Your task to perform on an android device: open app "Reddit" (install if not already installed) Image 0: 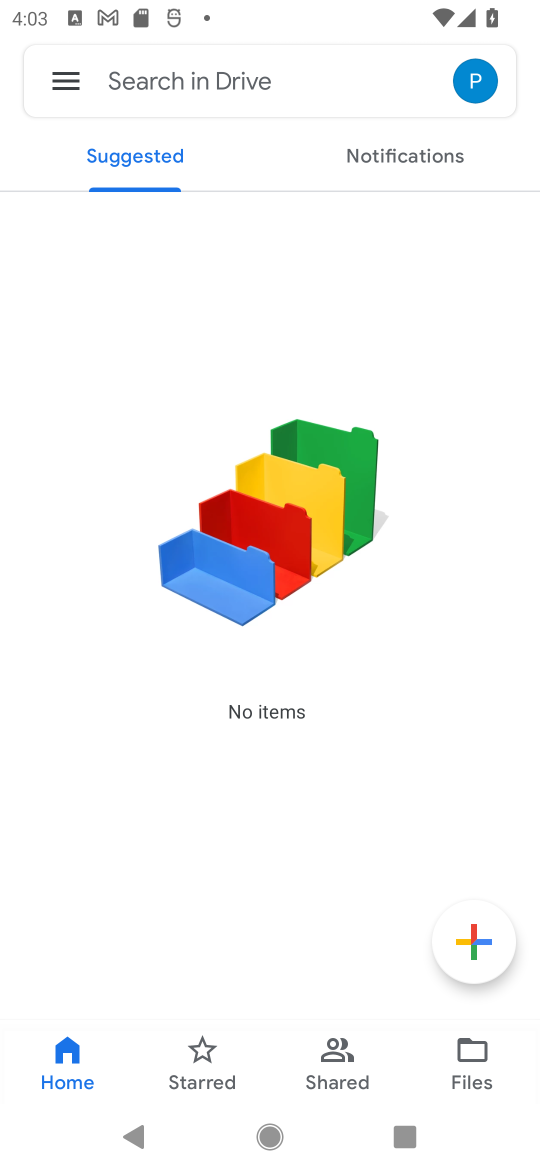
Step 0: press home button
Your task to perform on an android device: open app "Reddit" (install if not already installed) Image 1: 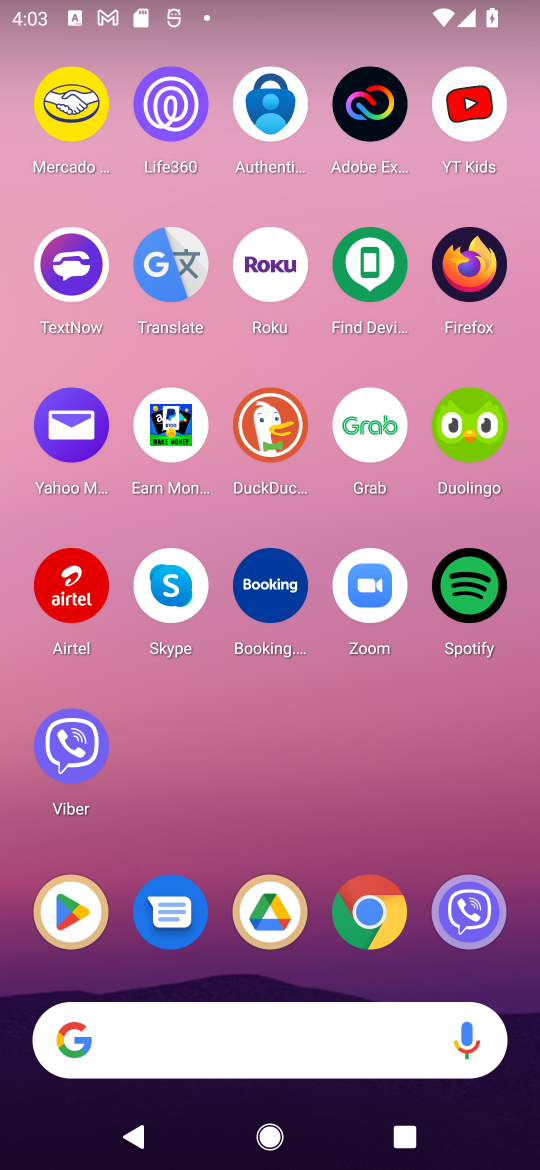
Step 1: click (64, 903)
Your task to perform on an android device: open app "Reddit" (install if not already installed) Image 2: 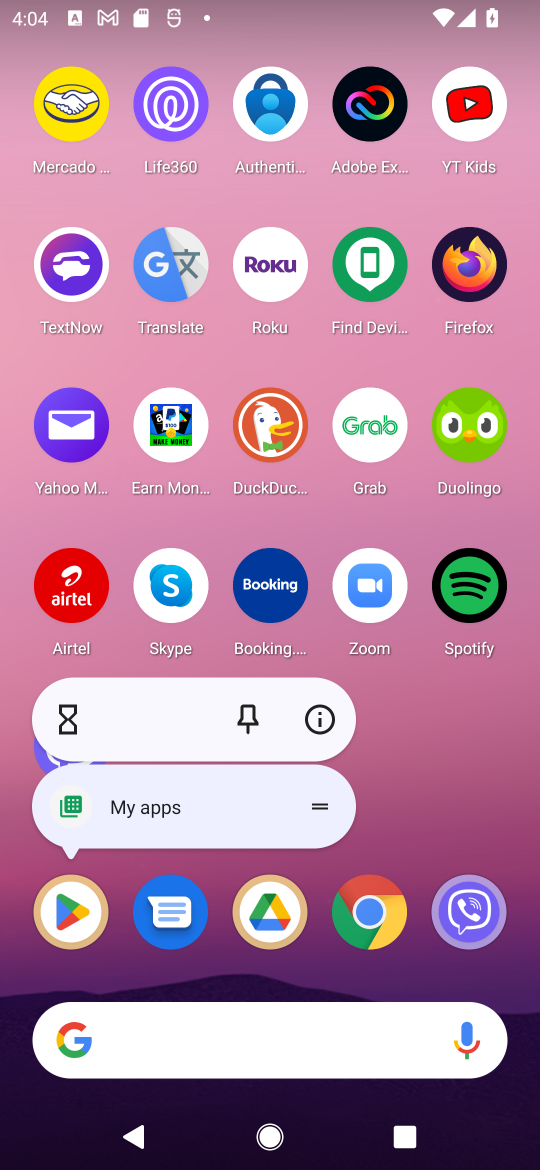
Step 2: click (64, 903)
Your task to perform on an android device: open app "Reddit" (install if not already installed) Image 3: 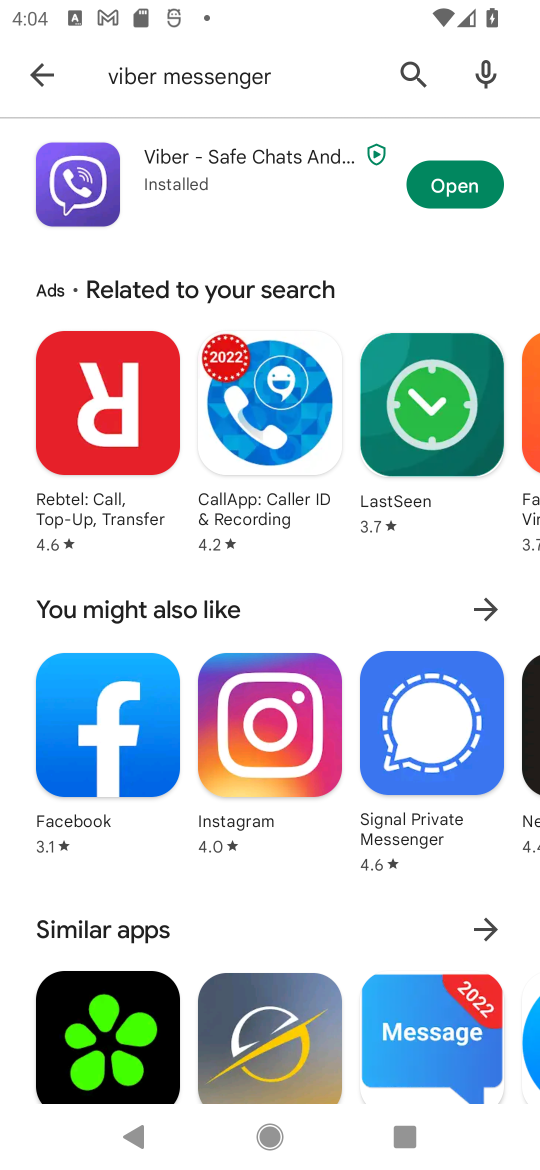
Step 3: click (407, 74)
Your task to perform on an android device: open app "Reddit" (install if not already installed) Image 4: 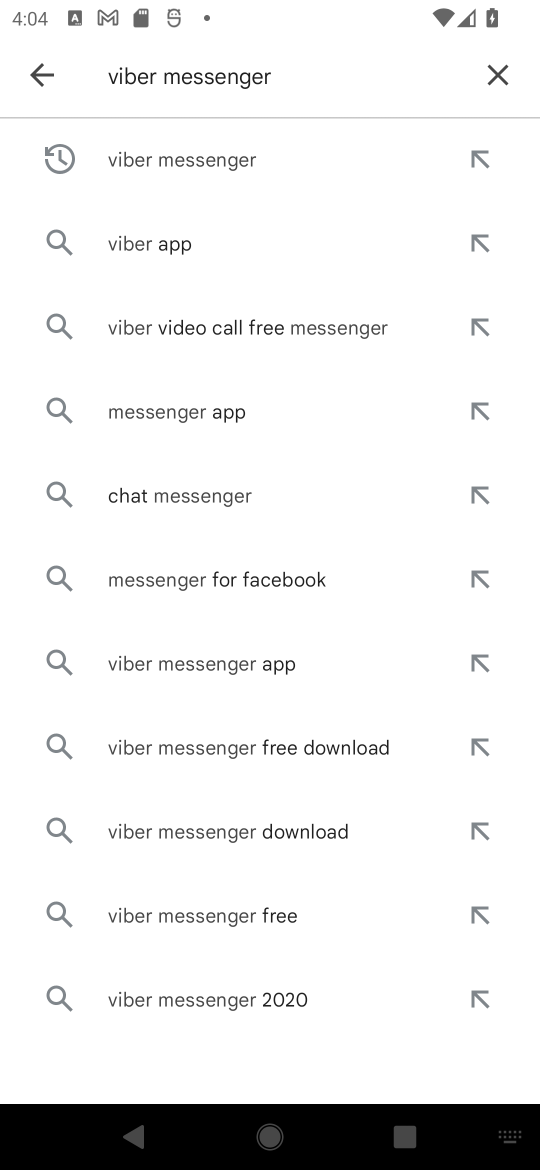
Step 4: click (491, 80)
Your task to perform on an android device: open app "Reddit" (install if not already installed) Image 5: 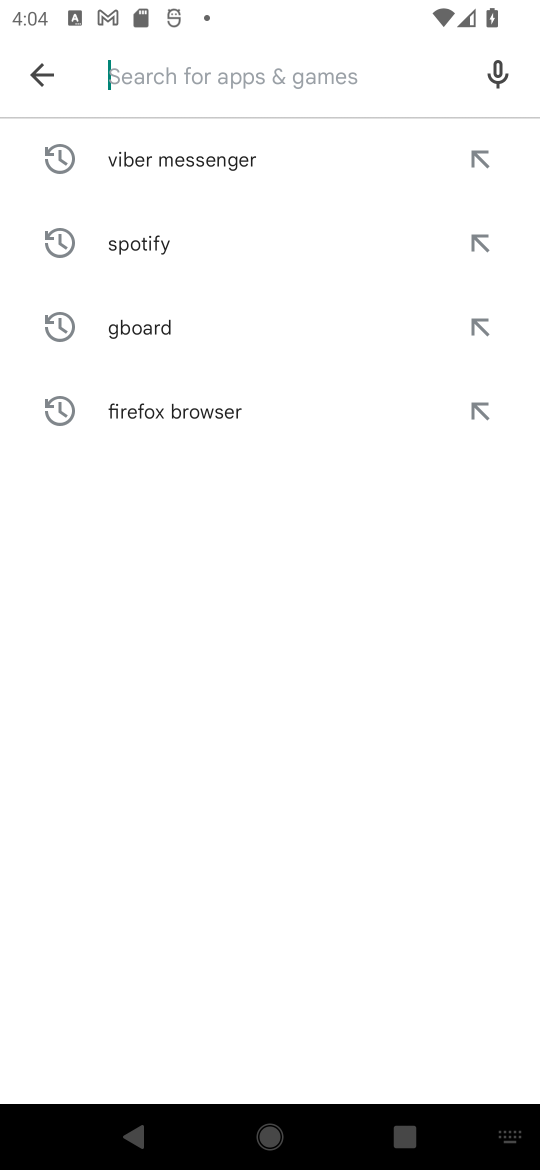
Step 5: type "Reddit"
Your task to perform on an android device: open app "Reddit" (install if not already installed) Image 6: 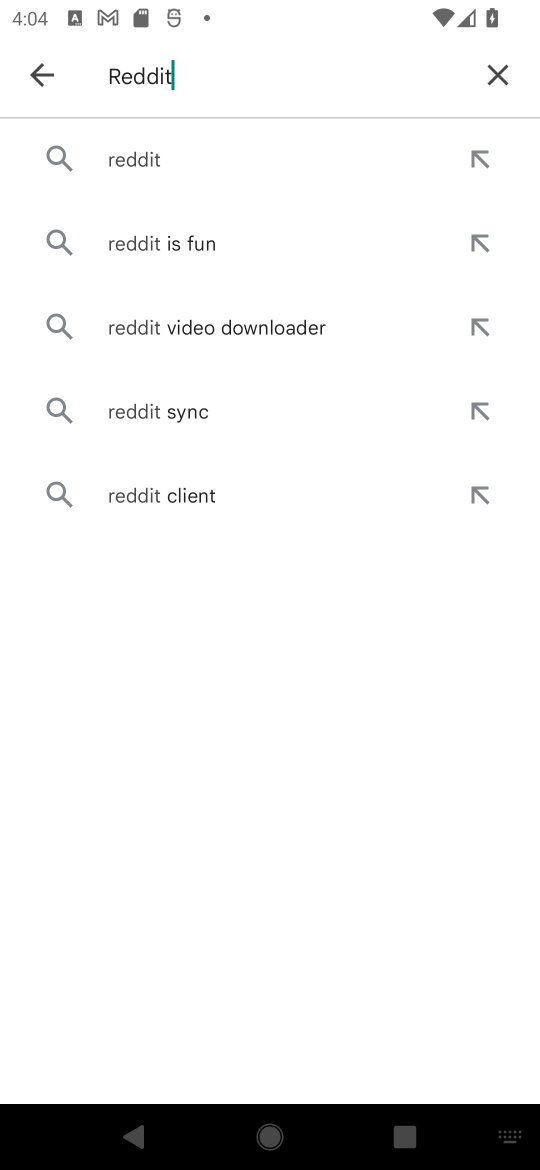
Step 6: click (110, 174)
Your task to perform on an android device: open app "Reddit" (install if not already installed) Image 7: 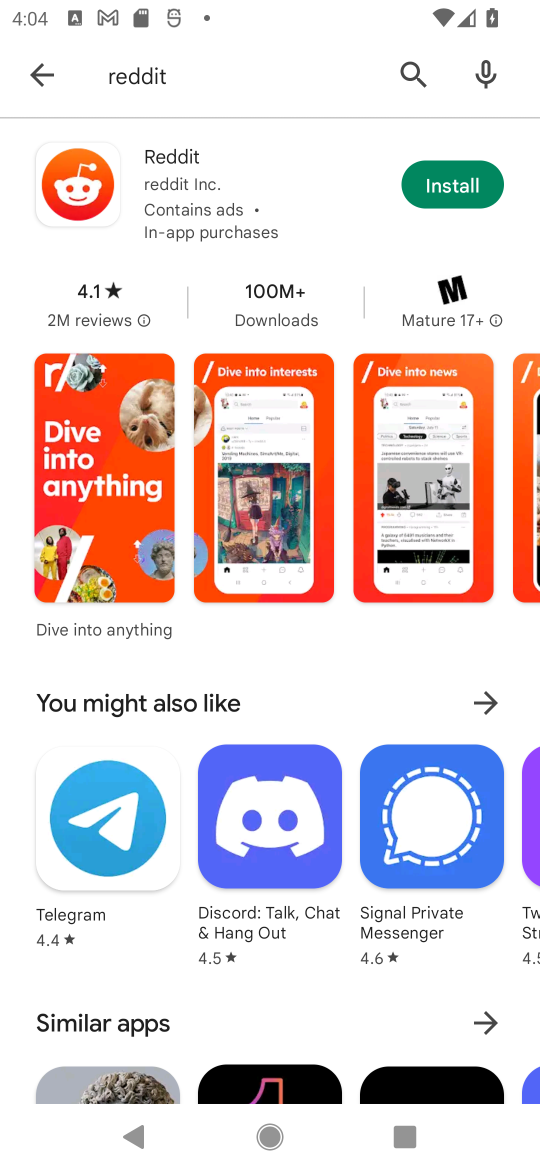
Step 7: click (421, 190)
Your task to perform on an android device: open app "Reddit" (install if not already installed) Image 8: 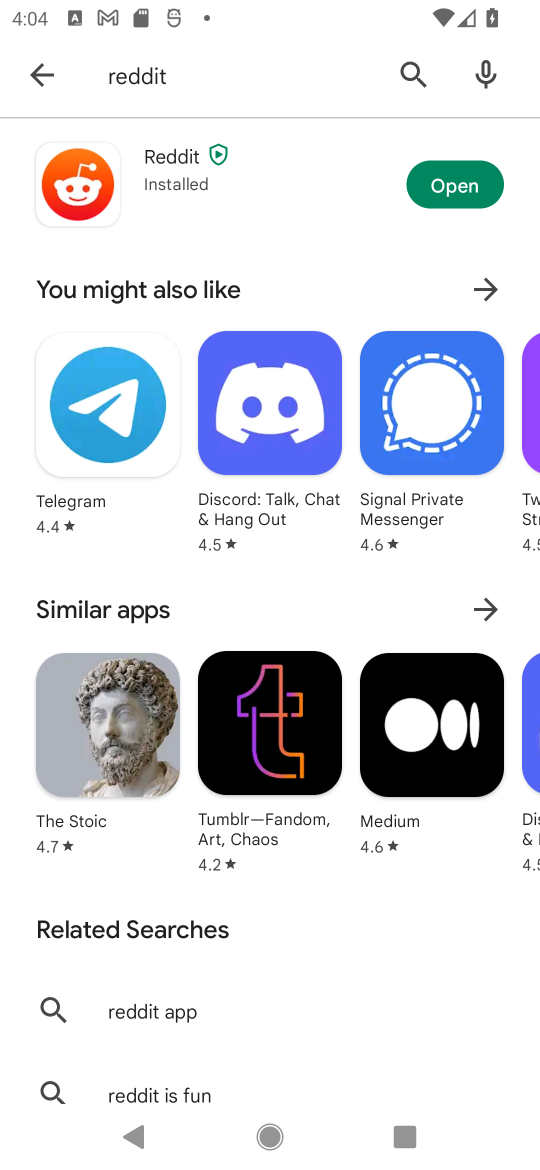
Step 8: click (473, 191)
Your task to perform on an android device: open app "Reddit" (install if not already installed) Image 9: 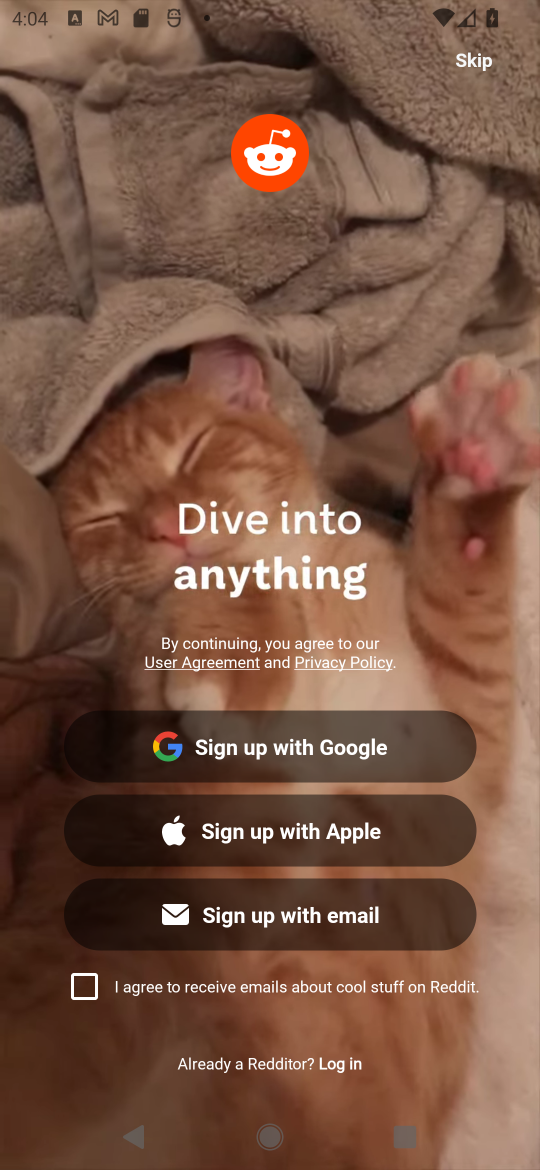
Step 9: task complete